Your task to perform on an android device: Open Android settings Image 0: 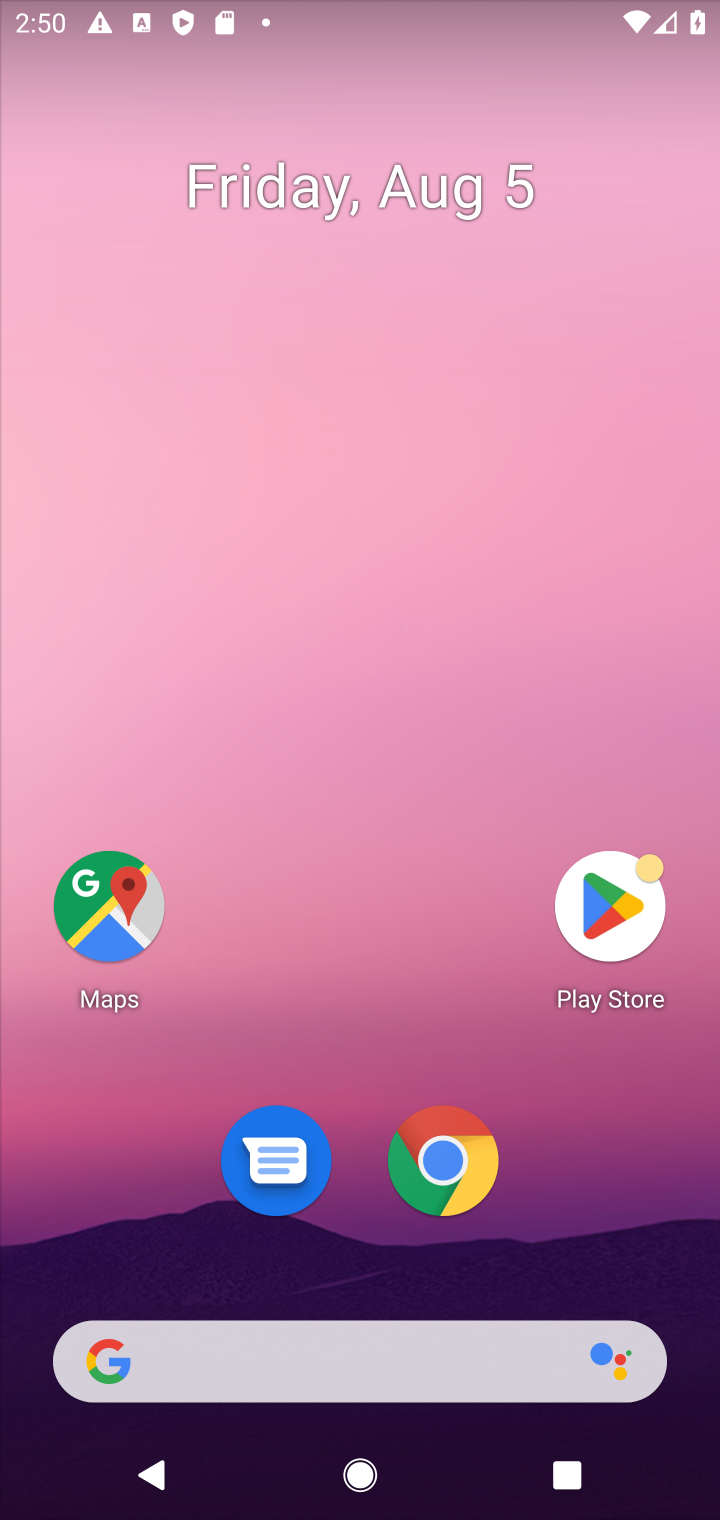
Step 0: drag from (342, 997) to (271, 139)
Your task to perform on an android device: Open Android settings Image 1: 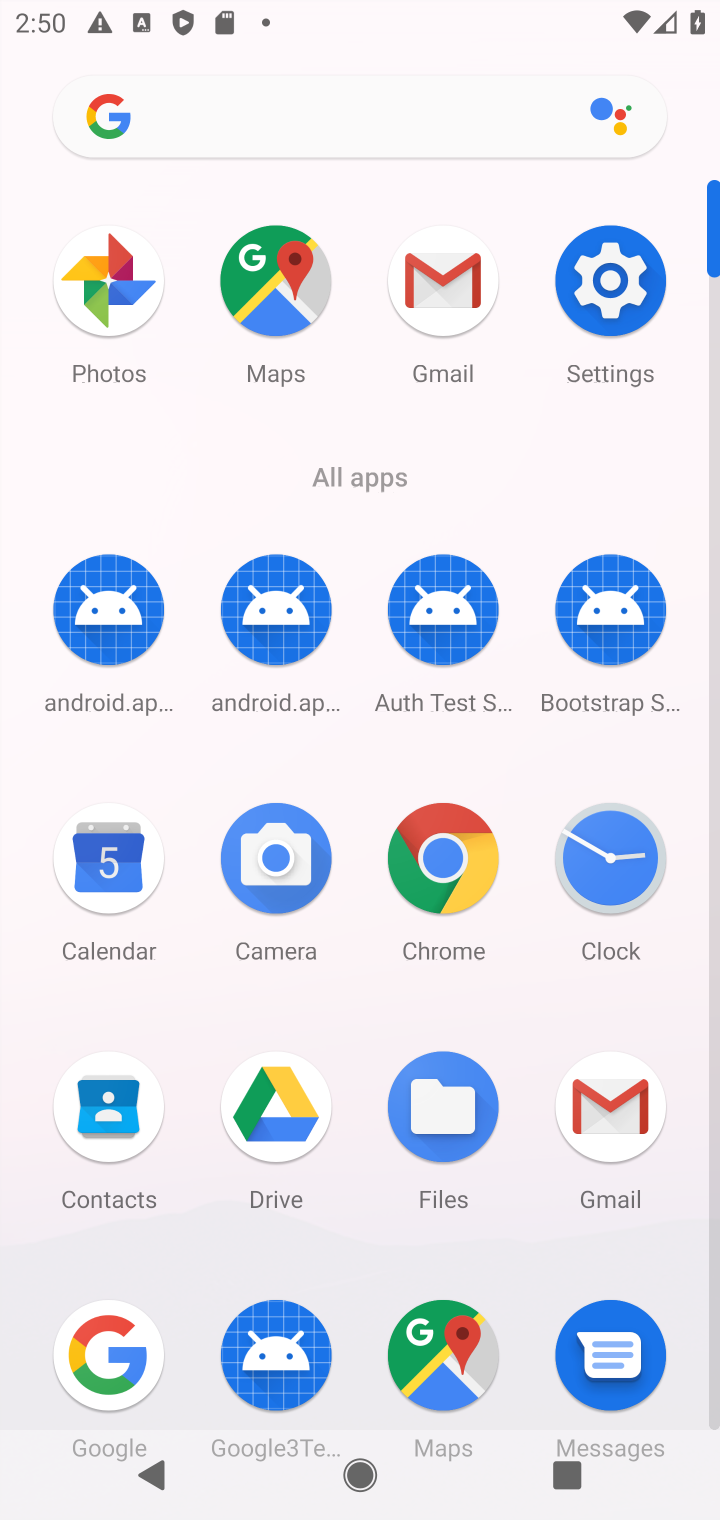
Step 1: click (603, 290)
Your task to perform on an android device: Open Android settings Image 2: 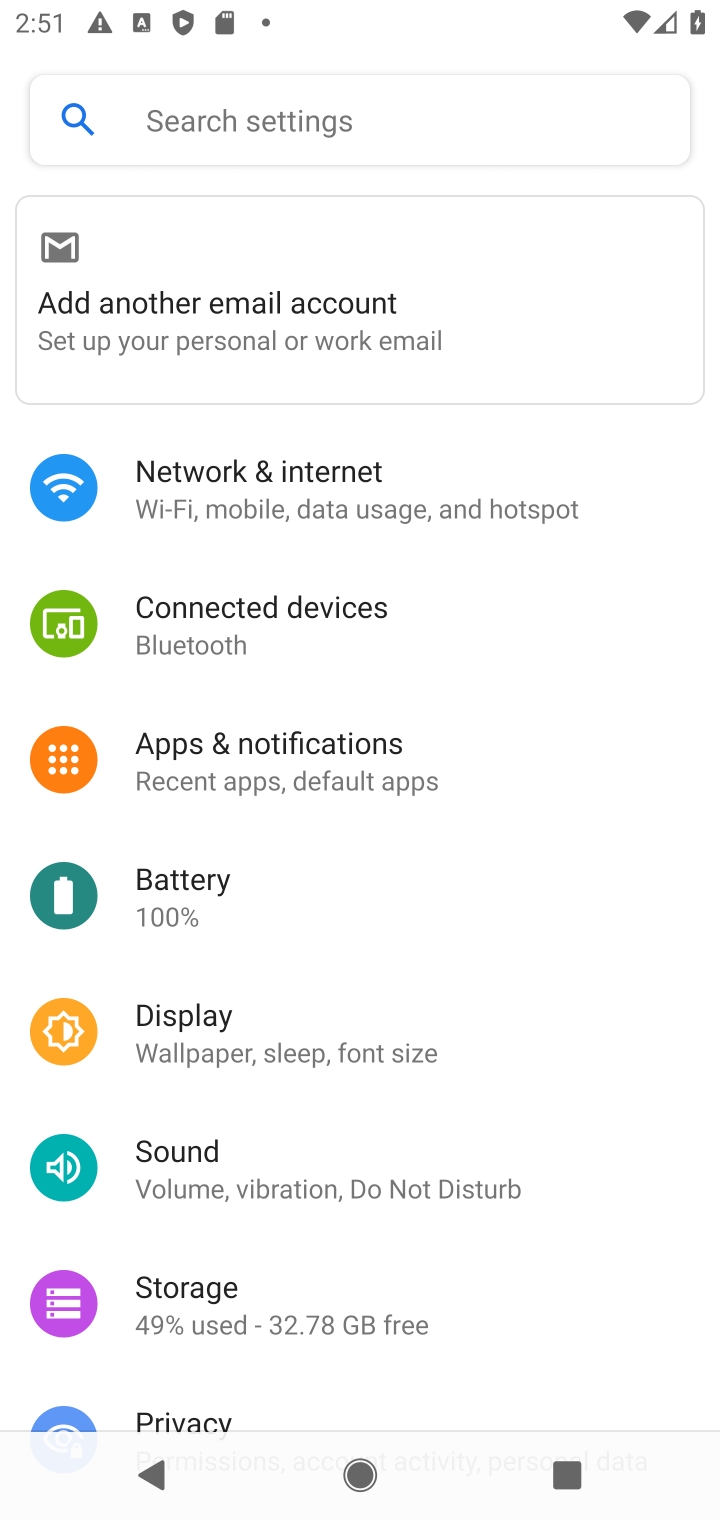
Step 2: task complete